Your task to perform on an android device: turn pop-ups off in chrome Image 0: 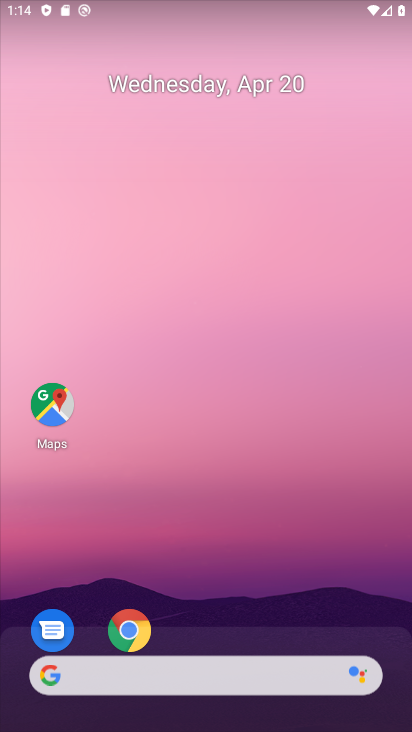
Step 0: click (136, 623)
Your task to perform on an android device: turn pop-ups off in chrome Image 1: 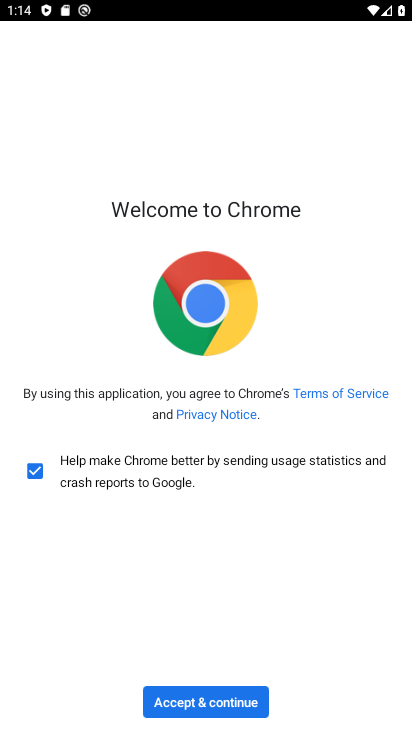
Step 1: click (189, 704)
Your task to perform on an android device: turn pop-ups off in chrome Image 2: 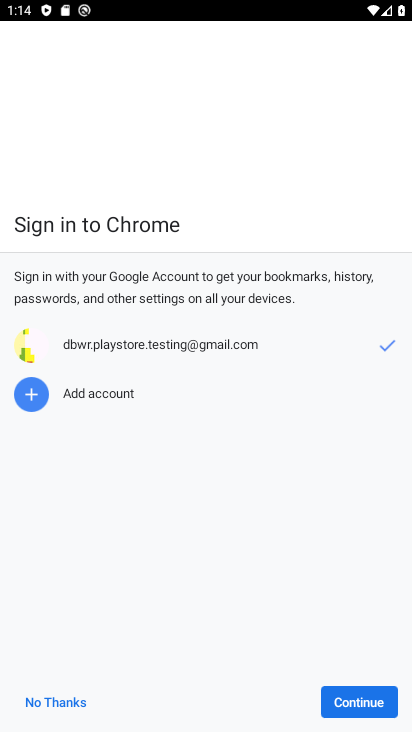
Step 2: click (386, 699)
Your task to perform on an android device: turn pop-ups off in chrome Image 3: 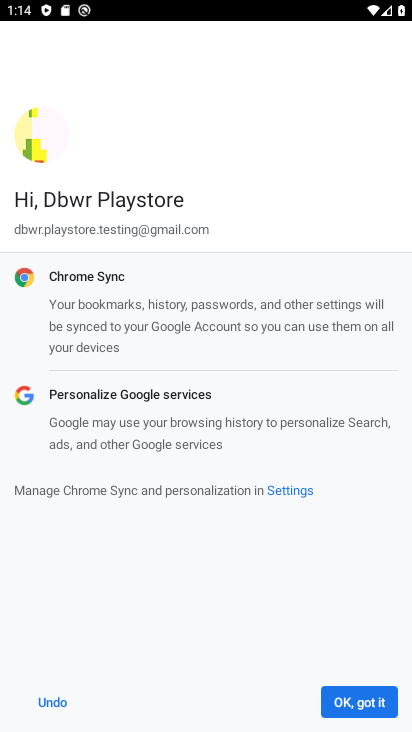
Step 3: click (386, 699)
Your task to perform on an android device: turn pop-ups off in chrome Image 4: 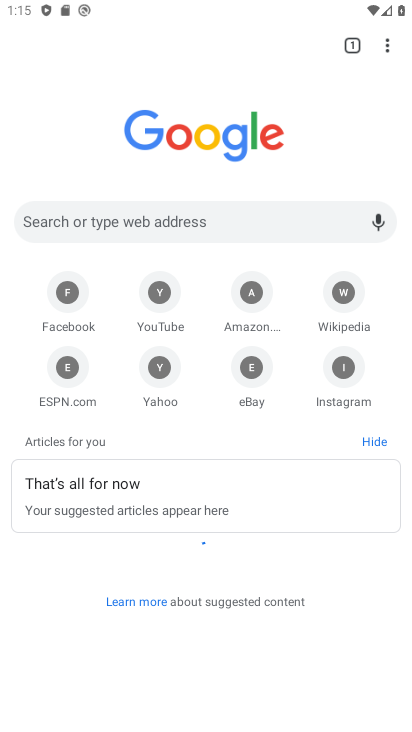
Step 4: drag from (387, 45) to (237, 388)
Your task to perform on an android device: turn pop-ups off in chrome Image 5: 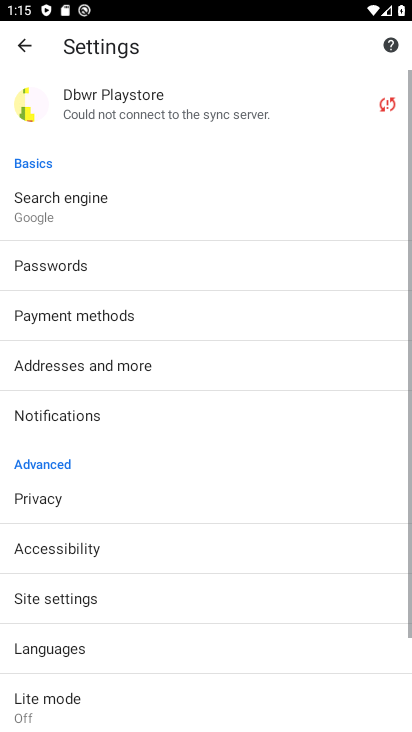
Step 5: click (61, 600)
Your task to perform on an android device: turn pop-ups off in chrome Image 6: 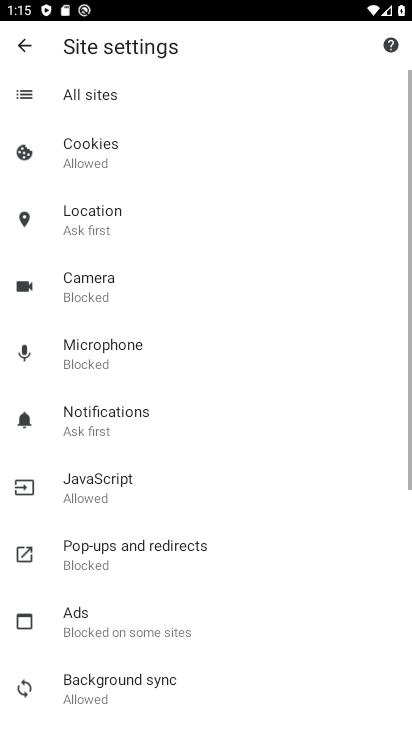
Step 6: click (193, 545)
Your task to perform on an android device: turn pop-ups off in chrome Image 7: 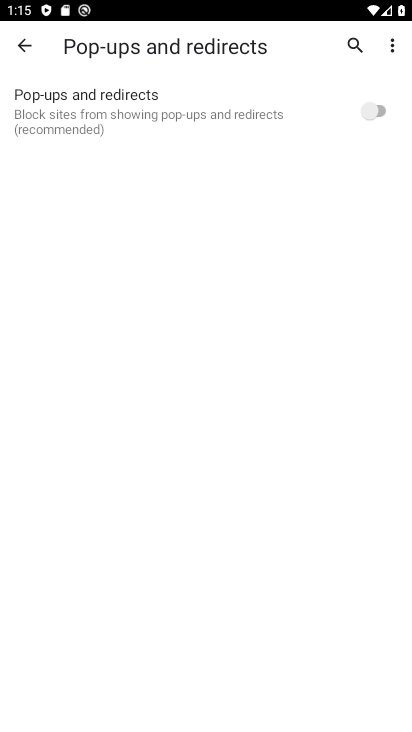
Step 7: task complete